Your task to perform on an android device: turn on showing notifications on the lock screen Image 0: 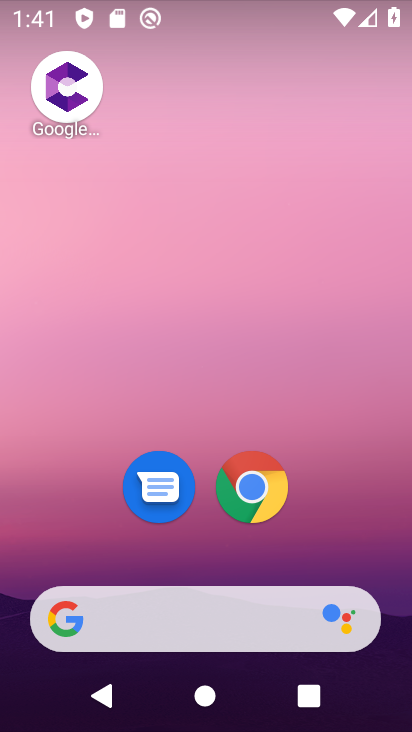
Step 0: drag from (257, 621) to (217, 59)
Your task to perform on an android device: turn on showing notifications on the lock screen Image 1: 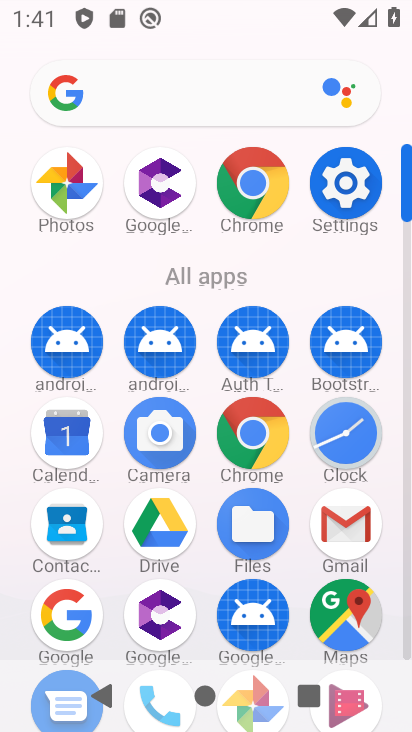
Step 1: click (344, 161)
Your task to perform on an android device: turn on showing notifications on the lock screen Image 2: 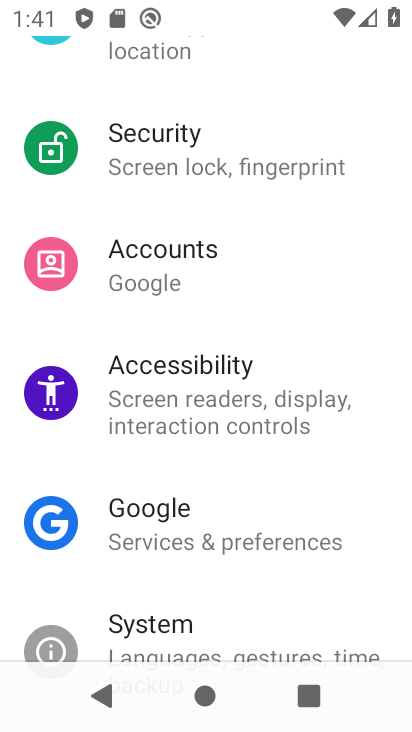
Step 2: drag from (235, 213) to (251, 647)
Your task to perform on an android device: turn on showing notifications on the lock screen Image 3: 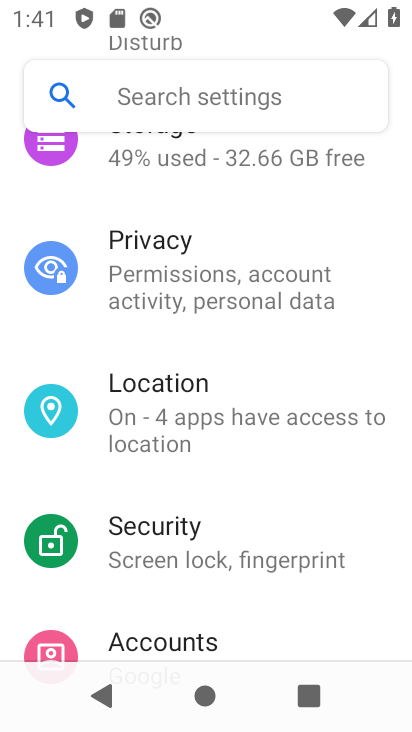
Step 3: drag from (232, 214) to (269, 622)
Your task to perform on an android device: turn on showing notifications on the lock screen Image 4: 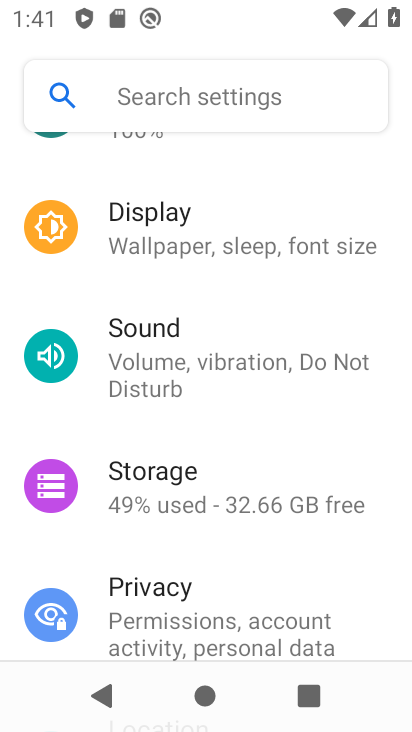
Step 4: drag from (253, 270) to (202, 713)
Your task to perform on an android device: turn on showing notifications on the lock screen Image 5: 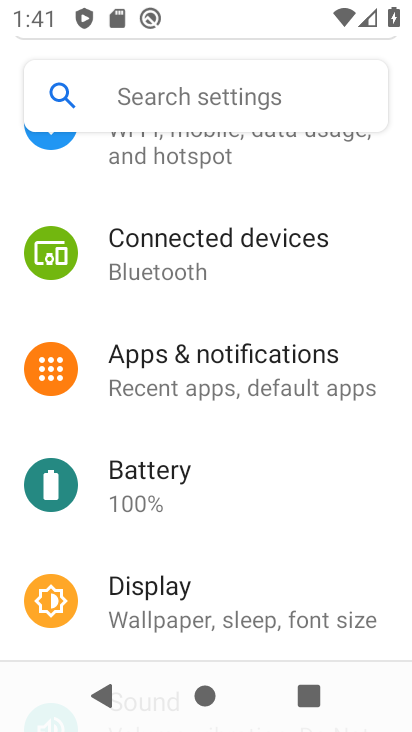
Step 5: click (209, 390)
Your task to perform on an android device: turn on showing notifications on the lock screen Image 6: 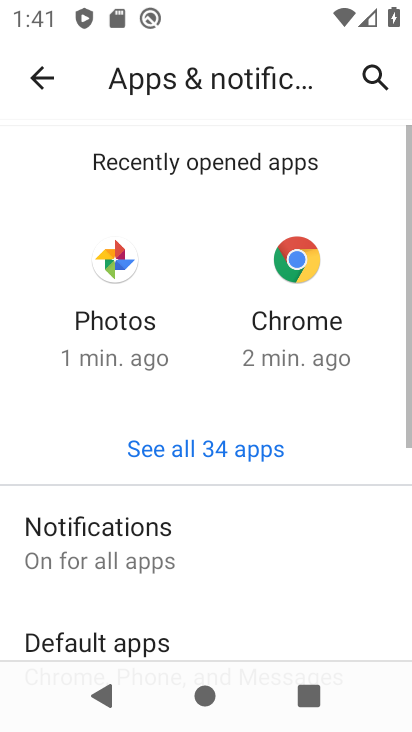
Step 6: click (189, 546)
Your task to perform on an android device: turn on showing notifications on the lock screen Image 7: 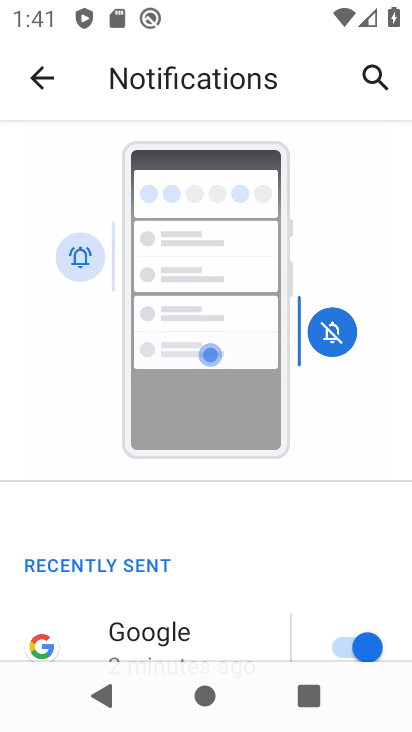
Step 7: drag from (219, 610) to (221, 105)
Your task to perform on an android device: turn on showing notifications on the lock screen Image 8: 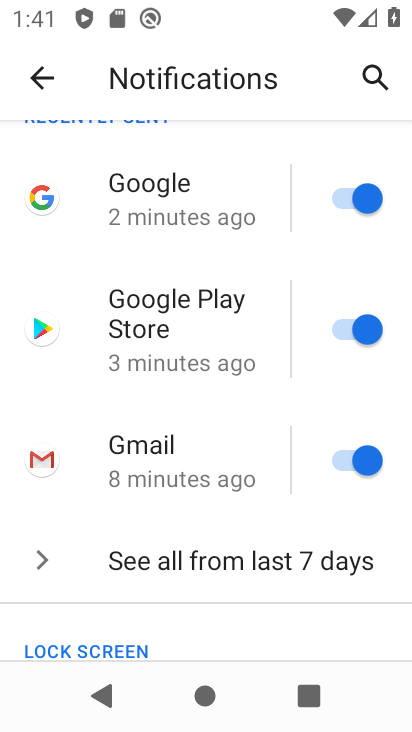
Step 8: drag from (226, 648) to (234, 164)
Your task to perform on an android device: turn on showing notifications on the lock screen Image 9: 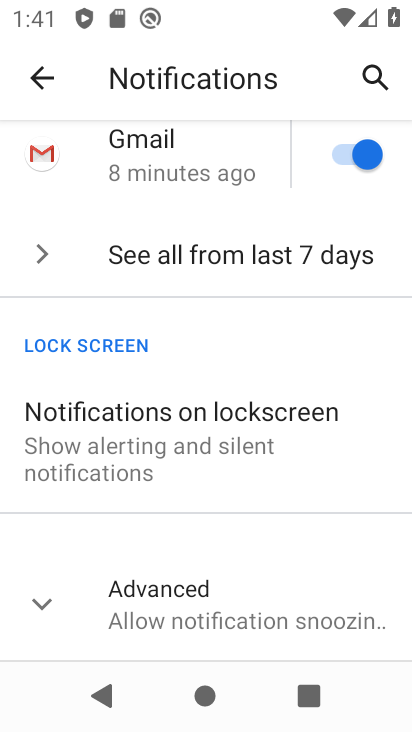
Step 9: click (195, 430)
Your task to perform on an android device: turn on showing notifications on the lock screen Image 10: 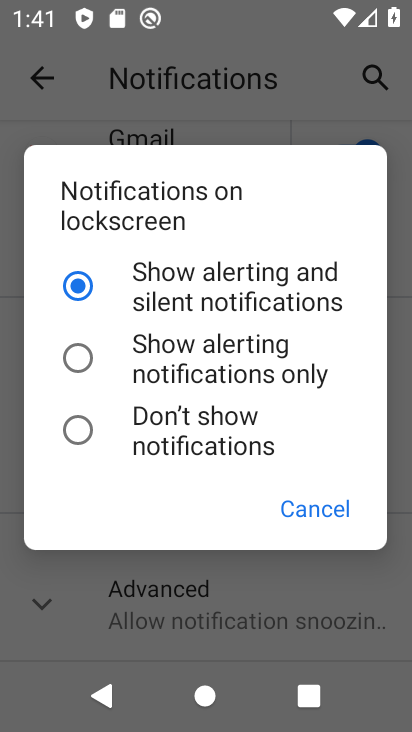
Step 10: task complete